Your task to perform on an android device: empty trash in google photos Image 0: 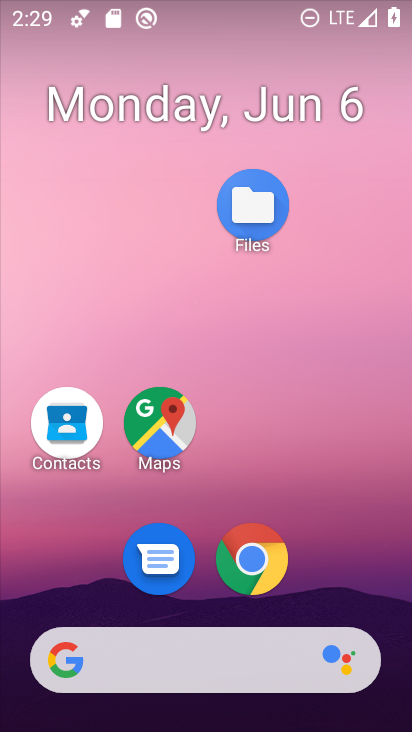
Step 0: drag from (226, 646) to (324, 80)
Your task to perform on an android device: empty trash in google photos Image 1: 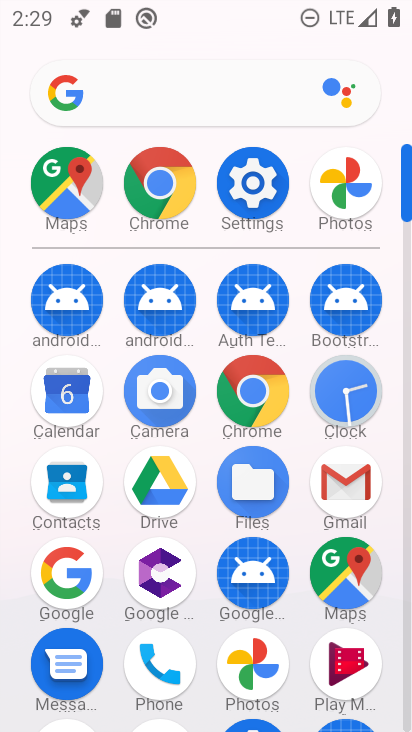
Step 1: click (249, 676)
Your task to perform on an android device: empty trash in google photos Image 2: 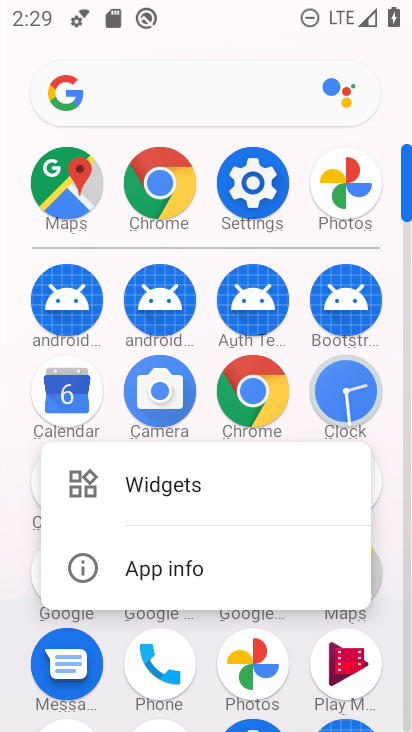
Step 2: click (241, 658)
Your task to perform on an android device: empty trash in google photos Image 3: 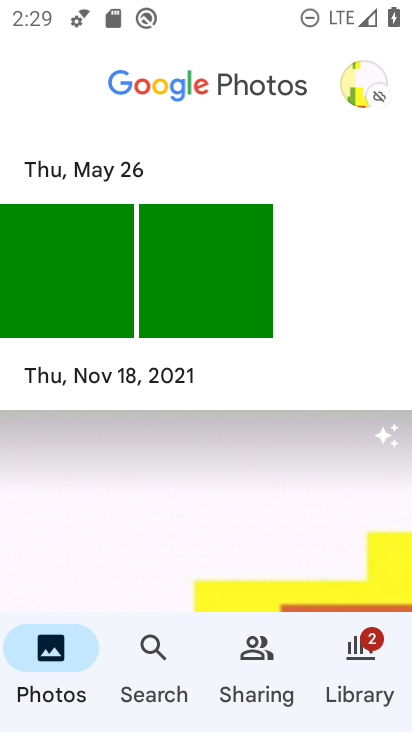
Step 3: click (360, 91)
Your task to perform on an android device: empty trash in google photos Image 4: 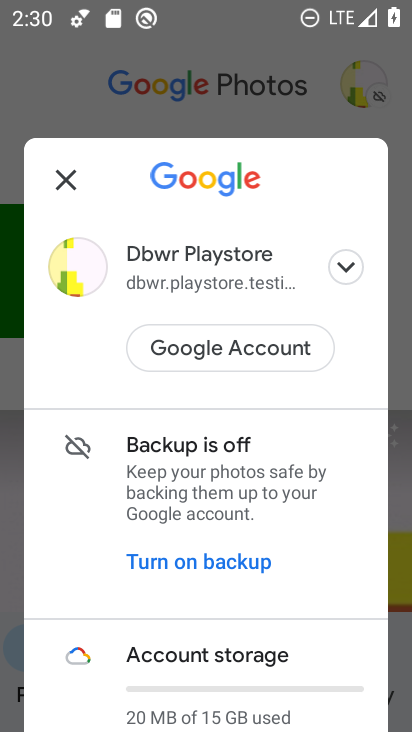
Step 4: task complete